Your task to perform on an android device: see creations saved in the google photos Image 0: 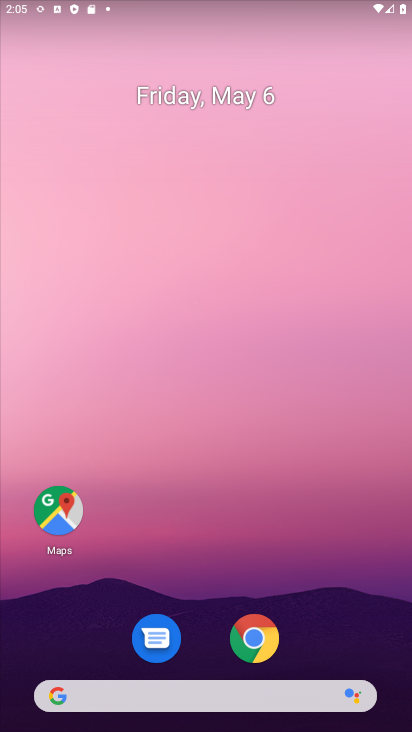
Step 0: drag from (256, 730) to (175, 1)
Your task to perform on an android device: see creations saved in the google photos Image 1: 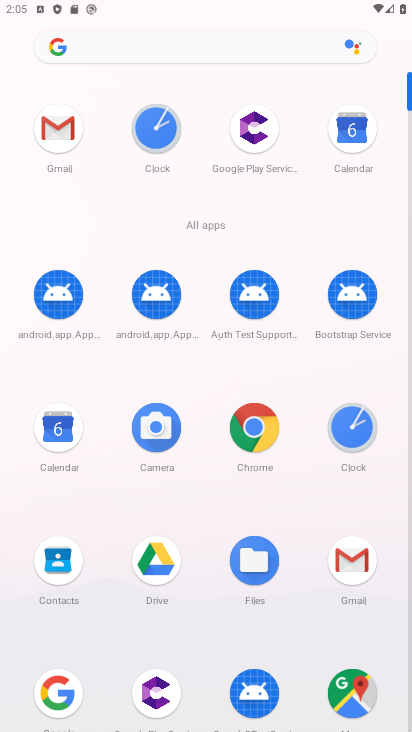
Step 1: drag from (238, 619) to (250, 100)
Your task to perform on an android device: see creations saved in the google photos Image 2: 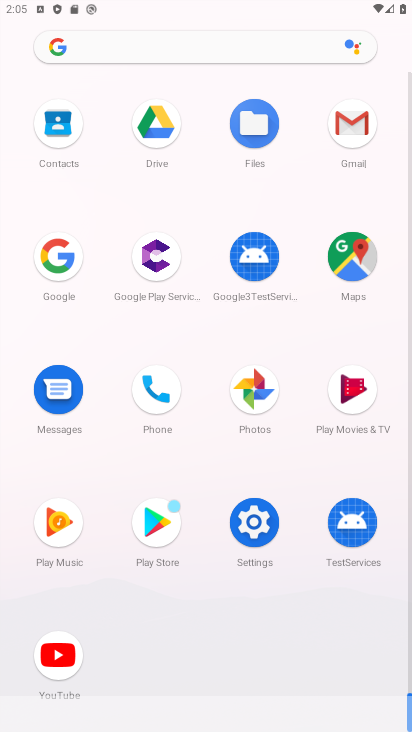
Step 2: click (246, 392)
Your task to perform on an android device: see creations saved in the google photos Image 3: 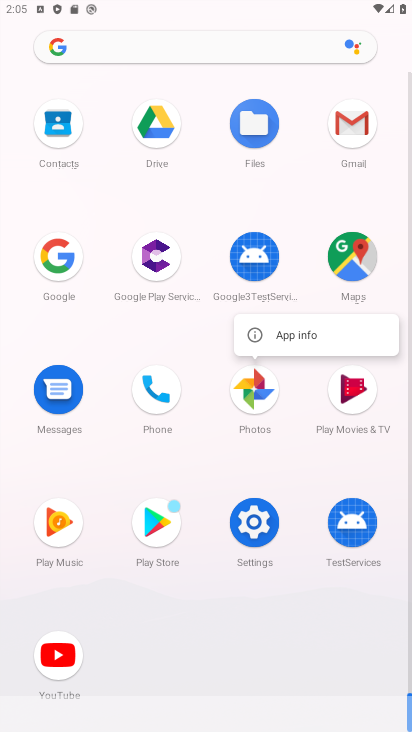
Step 3: click (246, 392)
Your task to perform on an android device: see creations saved in the google photos Image 4: 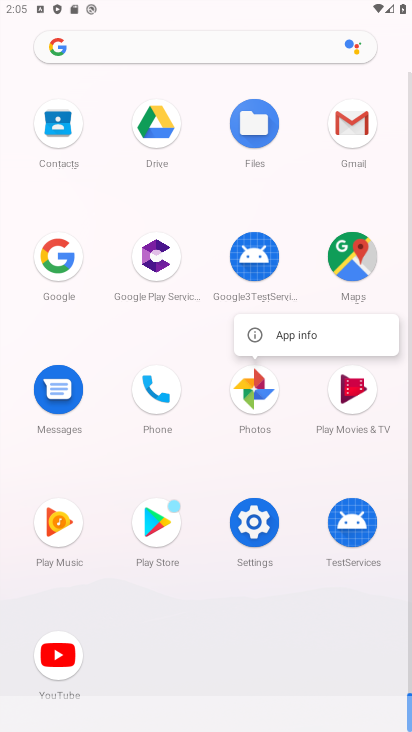
Step 4: click (246, 392)
Your task to perform on an android device: see creations saved in the google photos Image 5: 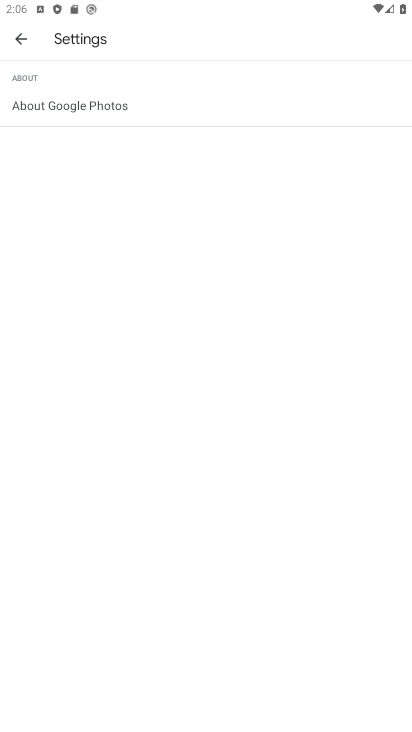
Step 5: press home button
Your task to perform on an android device: see creations saved in the google photos Image 6: 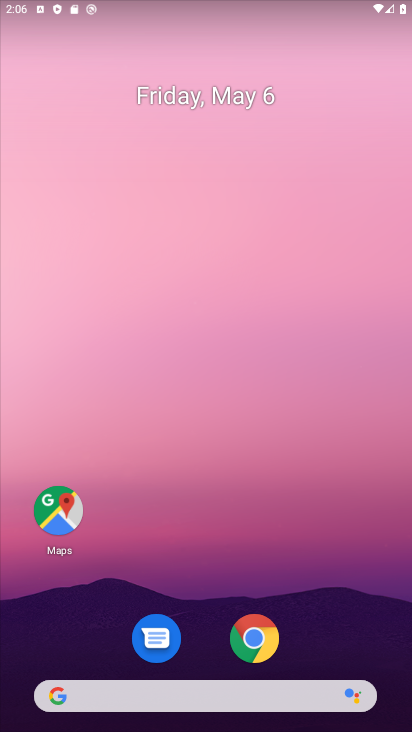
Step 6: drag from (127, 708) to (222, 225)
Your task to perform on an android device: see creations saved in the google photos Image 7: 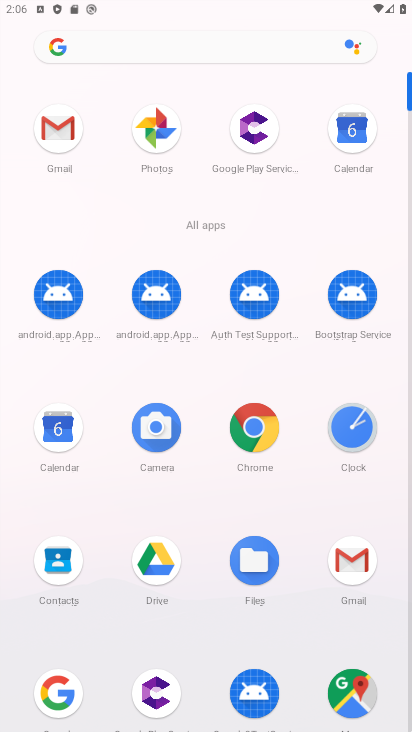
Step 7: click (158, 130)
Your task to perform on an android device: see creations saved in the google photos Image 8: 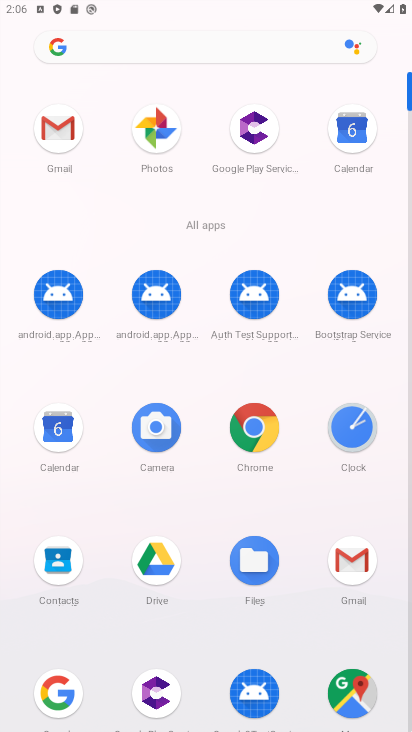
Step 8: click (158, 130)
Your task to perform on an android device: see creations saved in the google photos Image 9: 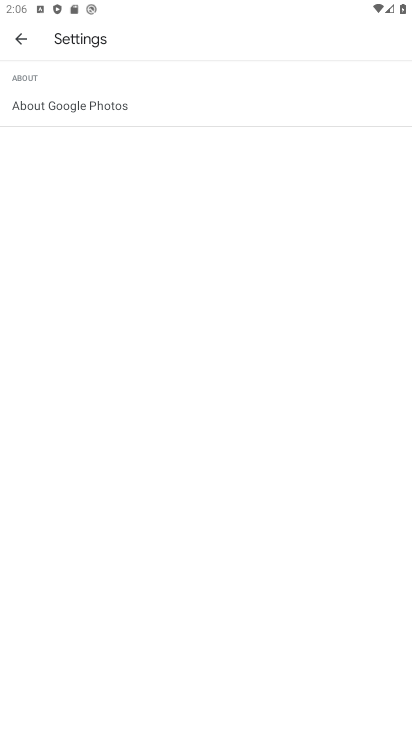
Step 9: click (18, 45)
Your task to perform on an android device: see creations saved in the google photos Image 10: 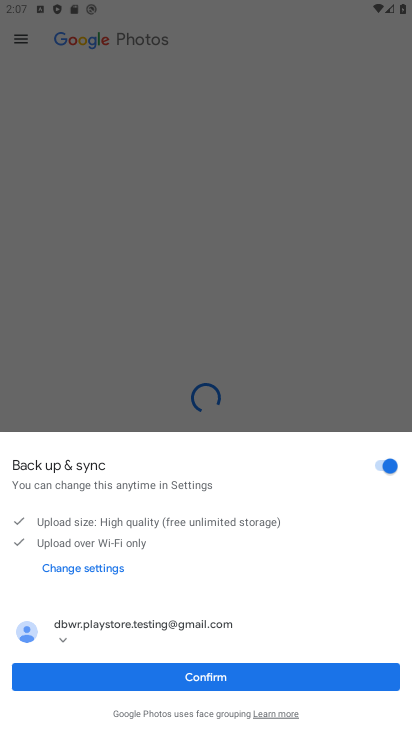
Step 10: click (215, 673)
Your task to perform on an android device: see creations saved in the google photos Image 11: 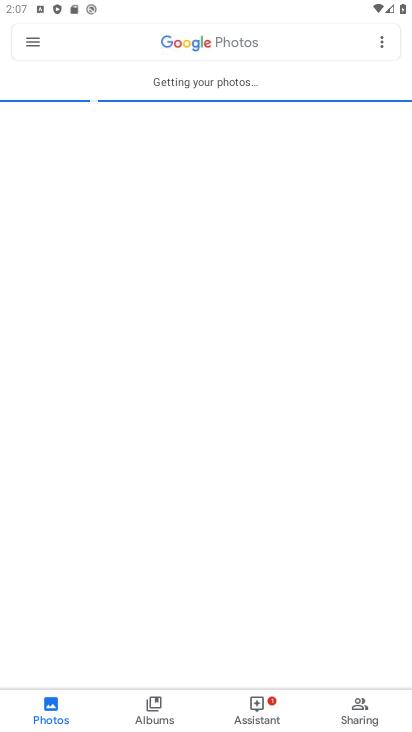
Step 11: click (121, 43)
Your task to perform on an android device: see creations saved in the google photos Image 12: 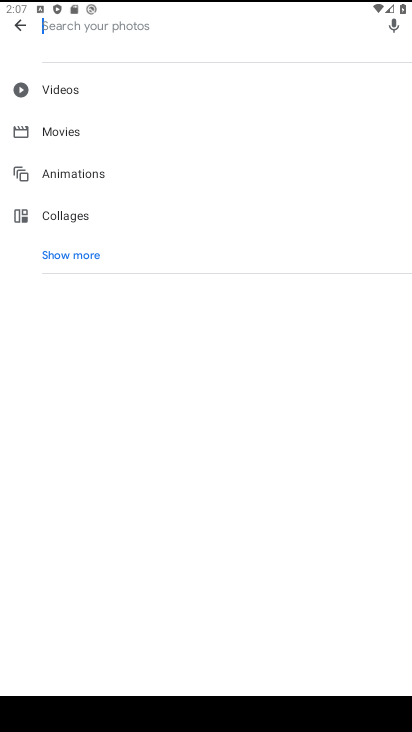
Step 12: click (78, 247)
Your task to perform on an android device: see creations saved in the google photos Image 13: 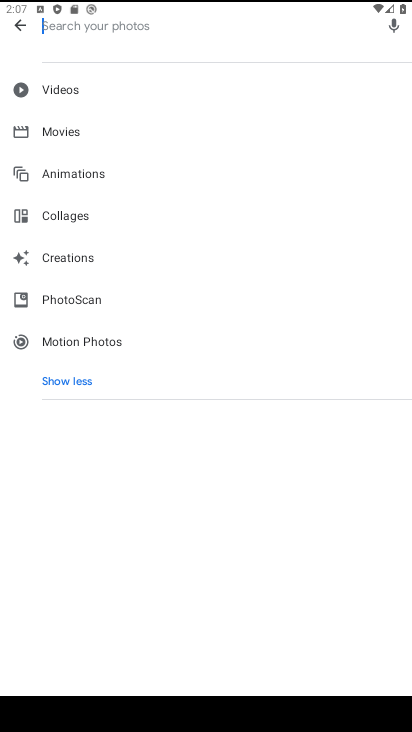
Step 13: click (62, 264)
Your task to perform on an android device: see creations saved in the google photos Image 14: 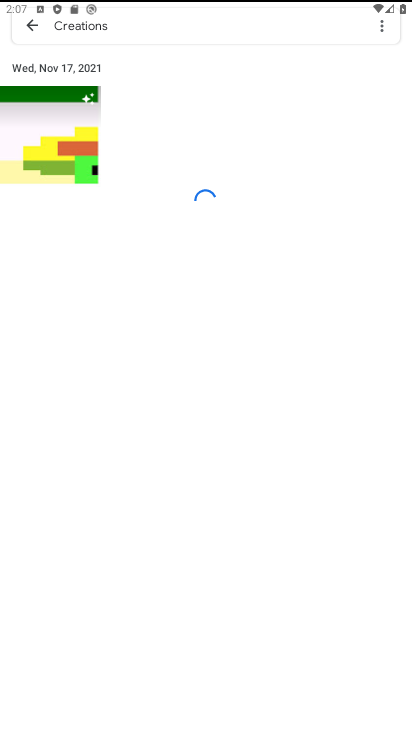
Step 14: task complete